Your task to perform on an android device: turn on sleep mode Image 0: 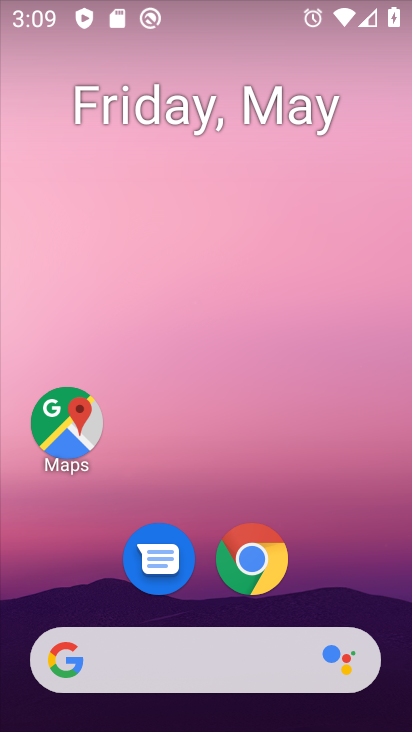
Step 0: drag from (364, 562) to (354, 179)
Your task to perform on an android device: turn on sleep mode Image 1: 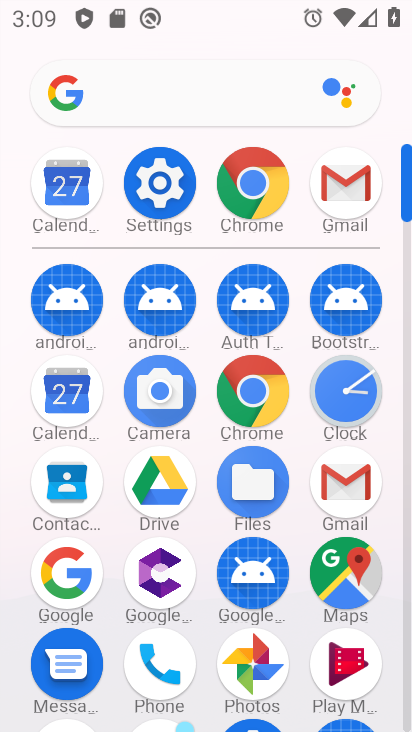
Step 1: click (178, 212)
Your task to perform on an android device: turn on sleep mode Image 2: 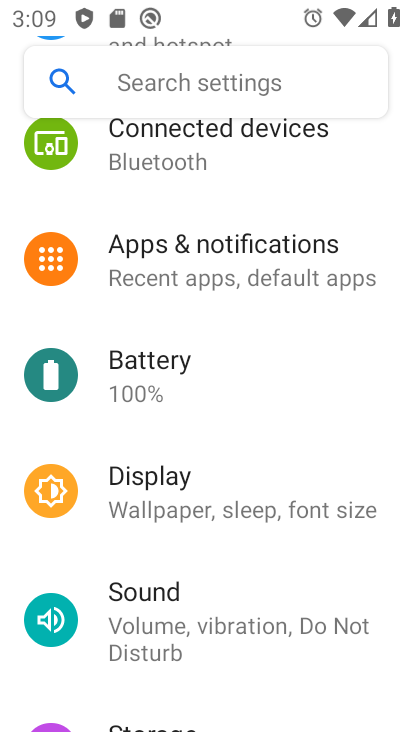
Step 2: drag from (256, 232) to (233, 694)
Your task to perform on an android device: turn on sleep mode Image 3: 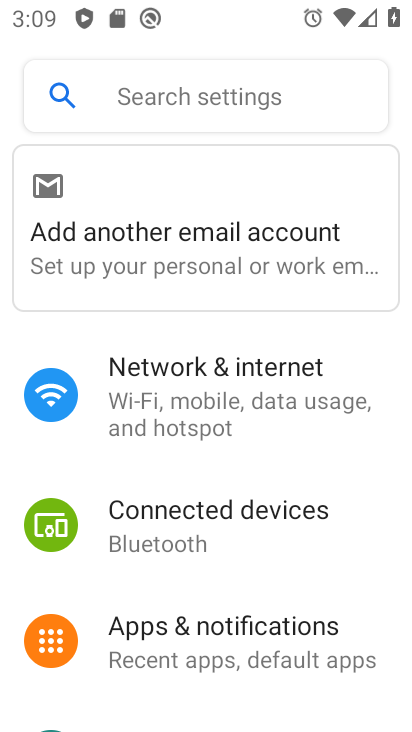
Step 3: drag from (202, 552) to (216, 248)
Your task to perform on an android device: turn on sleep mode Image 4: 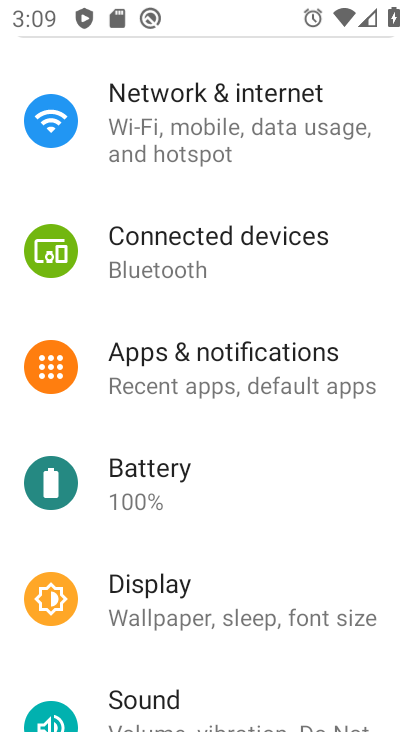
Step 4: click (209, 611)
Your task to perform on an android device: turn on sleep mode Image 5: 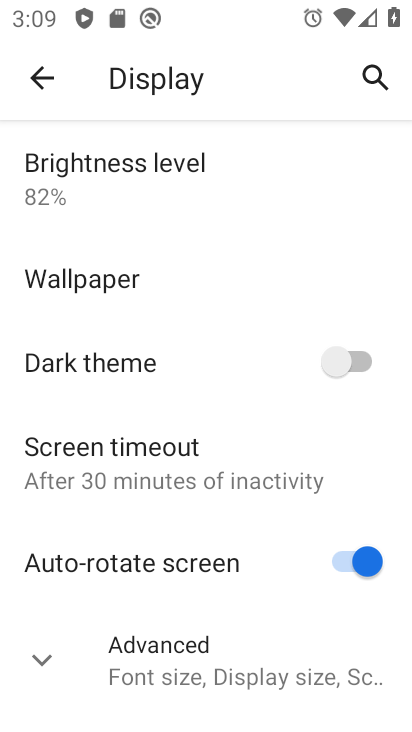
Step 5: click (244, 462)
Your task to perform on an android device: turn on sleep mode Image 6: 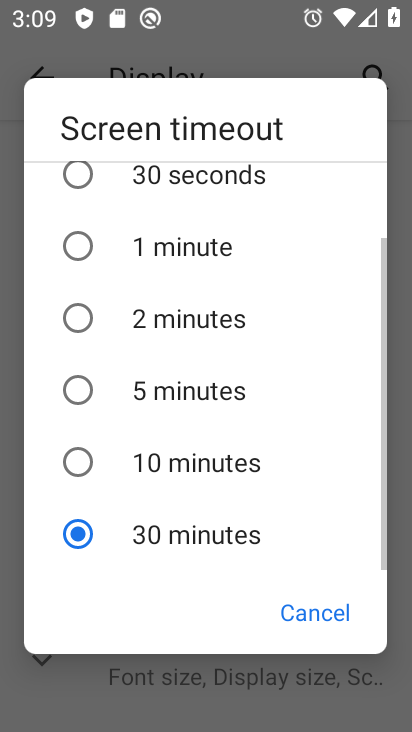
Step 6: click (206, 171)
Your task to perform on an android device: turn on sleep mode Image 7: 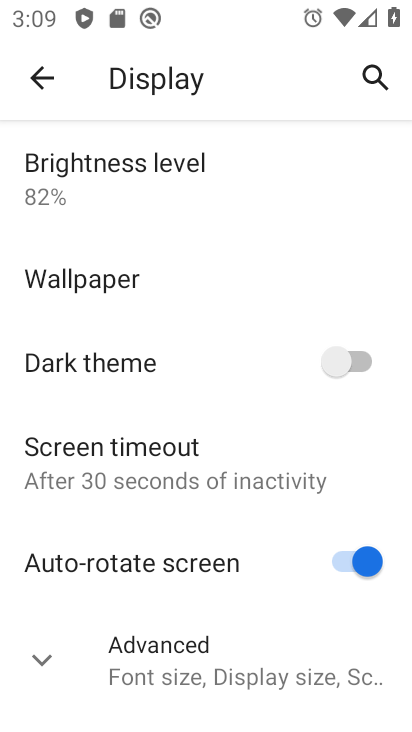
Step 7: task complete